Your task to perform on an android device: See recent photos Image 0: 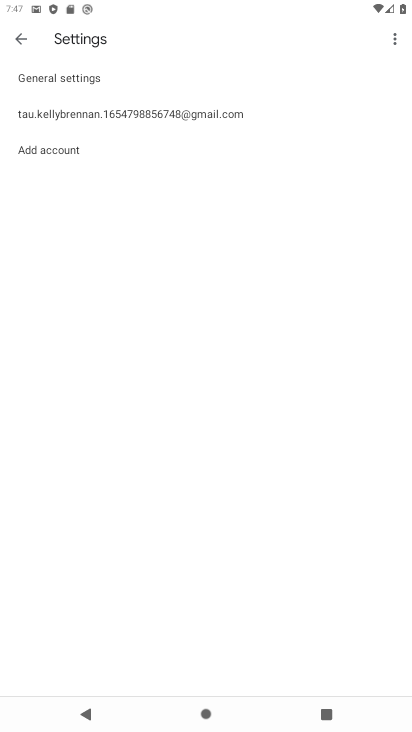
Step 0: click (340, 332)
Your task to perform on an android device: See recent photos Image 1: 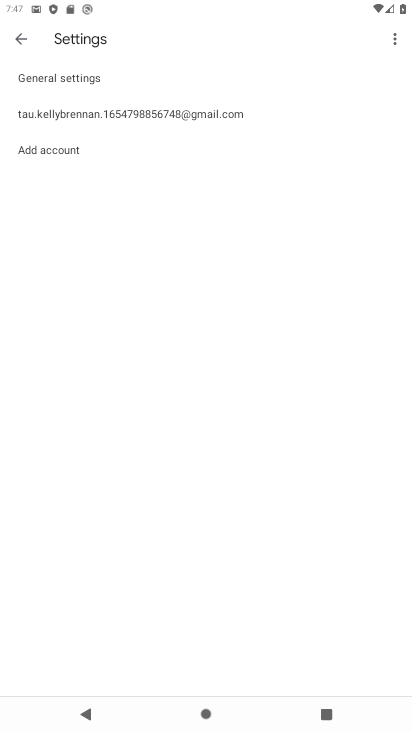
Step 1: press home button
Your task to perform on an android device: See recent photos Image 2: 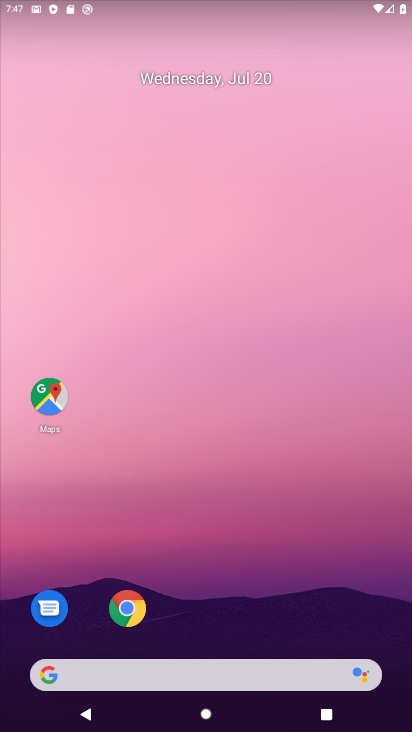
Step 2: drag from (67, 508) to (256, 95)
Your task to perform on an android device: See recent photos Image 3: 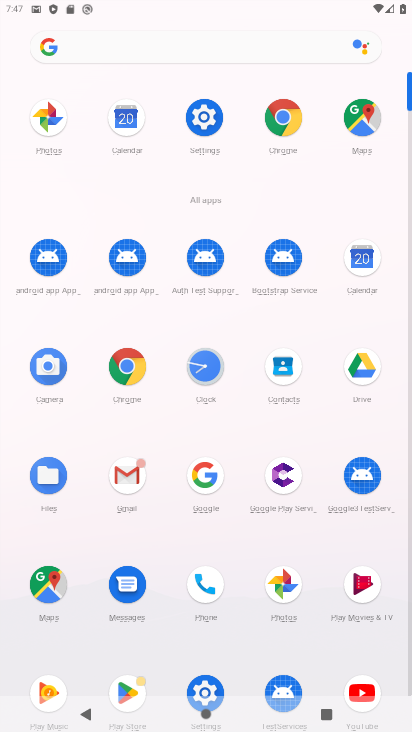
Step 3: click (289, 581)
Your task to perform on an android device: See recent photos Image 4: 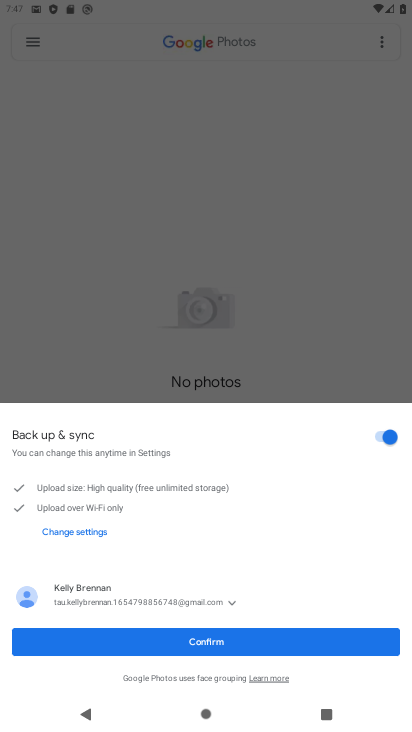
Step 4: click (234, 652)
Your task to perform on an android device: See recent photos Image 5: 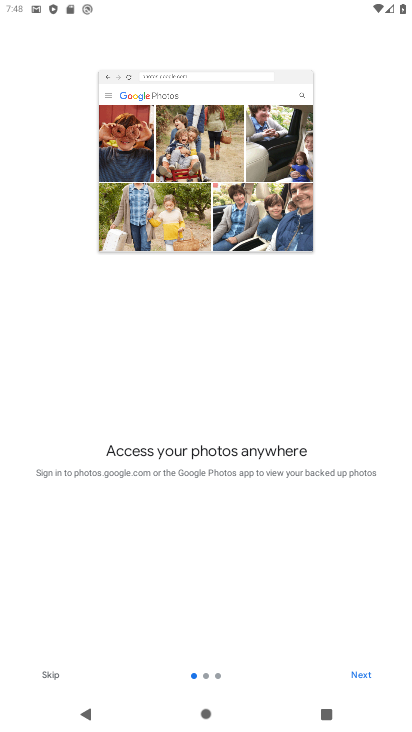
Step 5: click (367, 678)
Your task to perform on an android device: See recent photos Image 6: 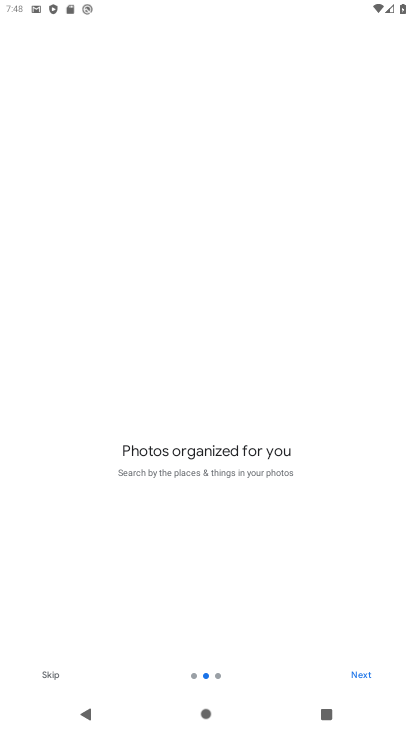
Step 6: click (367, 678)
Your task to perform on an android device: See recent photos Image 7: 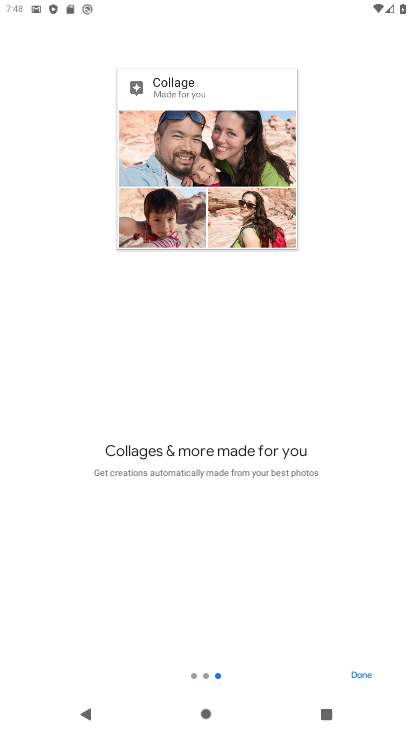
Step 7: click (368, 677)
Your task to perform on an android device: See recent photos Image 8: 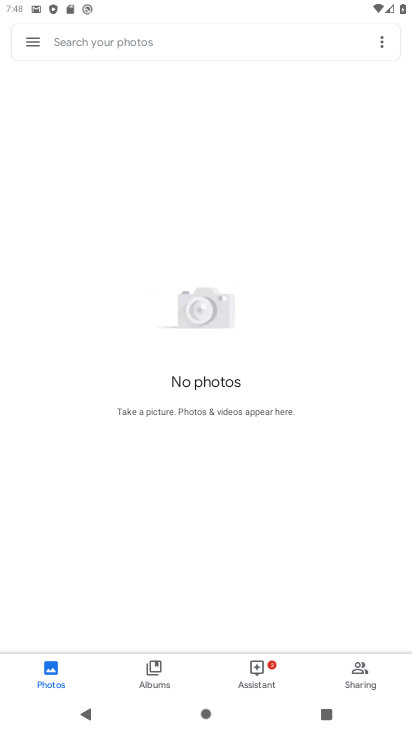
Step 8: task complete